Your task to perform on an android device: Open location settings Image 0: 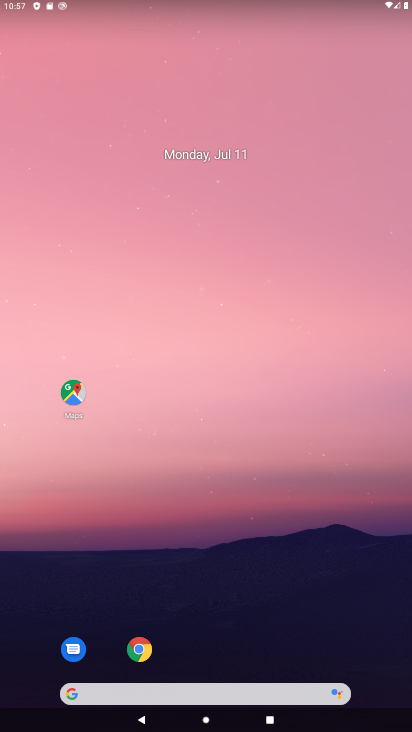
Step 0: drag from (167, 693) to (211, 95)
Your task to perform on an android device: Open location settings Image 1: 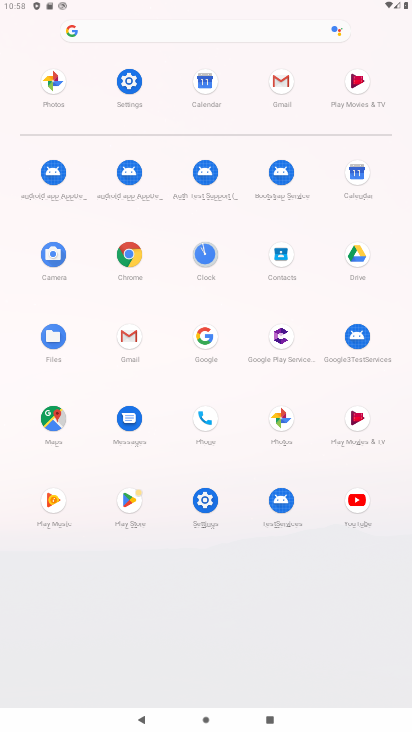
Step 1: click (130, 81)
Your task to perform on an android device: Open location settings Image 2: 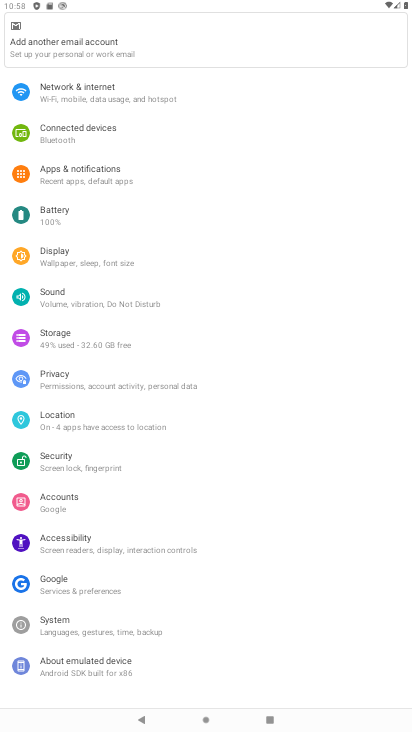
Step 2: click (60, 423)
Your task to perform on an android device: Open location settings Image 3: 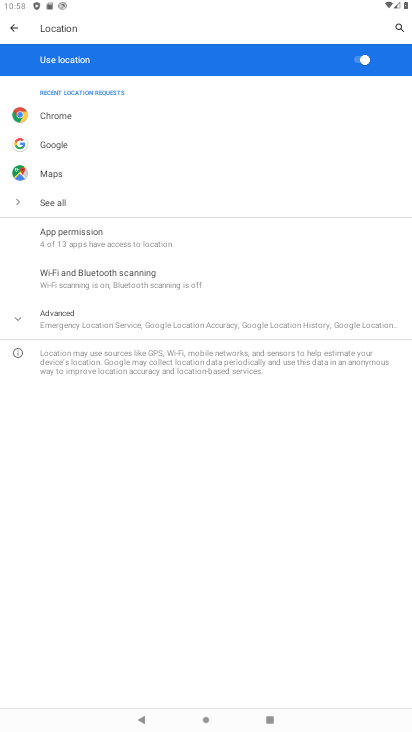
Step 3: task complete